Your task to perform on an android device: find which apps use the phone's location Image 0: 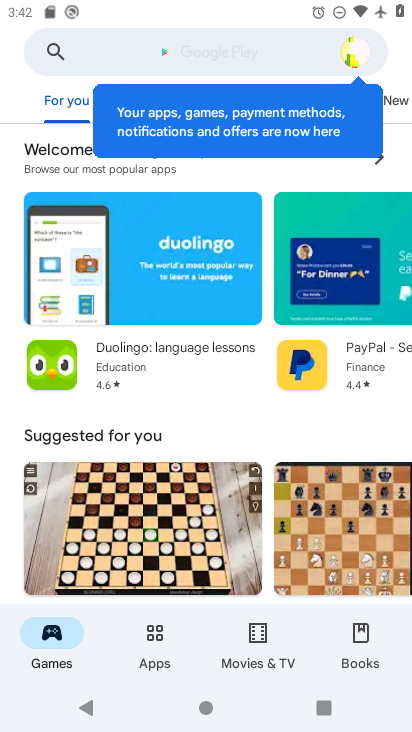
Step 0: press home button
Your task to perform on an android device: find which apps use the phone's location Image 1: 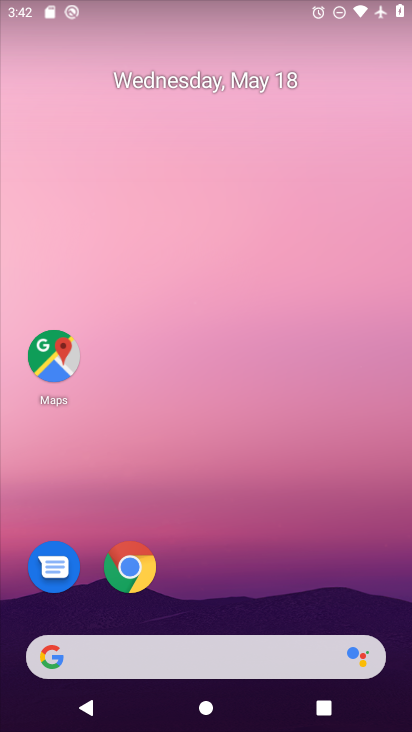
Step 1: drag from (205, 587) to (239, 232)
Your task to perform on an android device: find which apps use the phone's location Image 2: 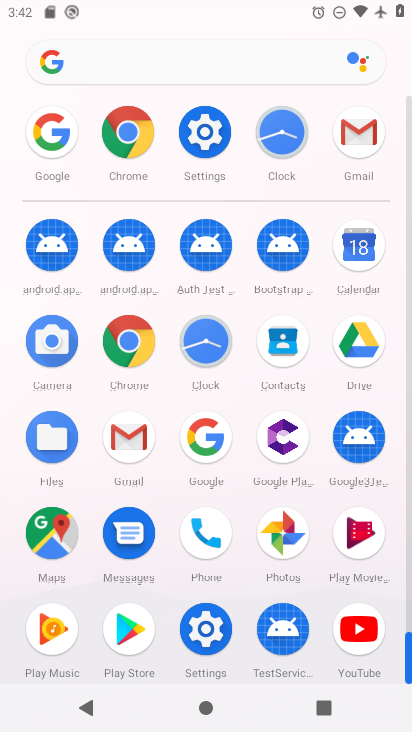
Step 2: click (198, 118)
Your task to perform on an android device: find which apps use the phone's location Image 3: 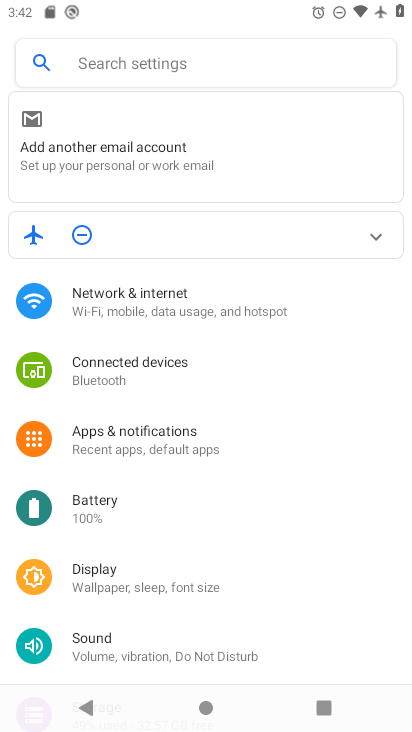
Step 3: drag from (139, 592) to (194, 286)
Your task to perform on an android device: find which apps use the phone's location Image 4: 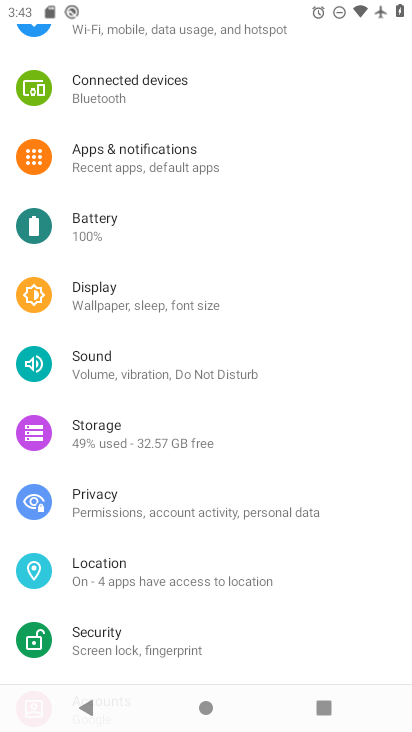
Step 4: click (199, 577)
Your task to perform on an android device: find which apps use the phone's location Image 5: 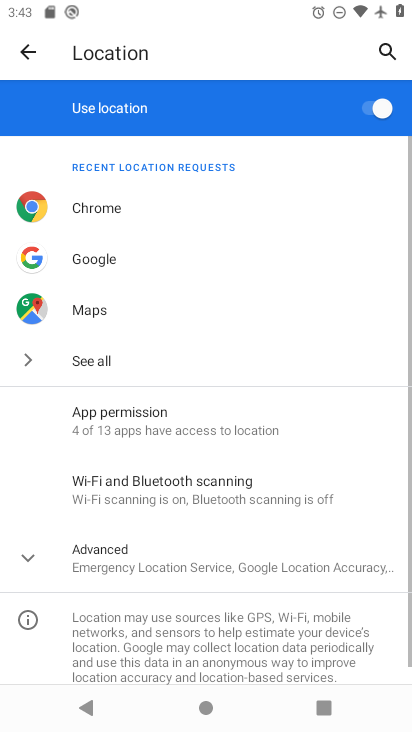
Step 5: task complete